Your task to perform on an android device: add a contact Image 0: 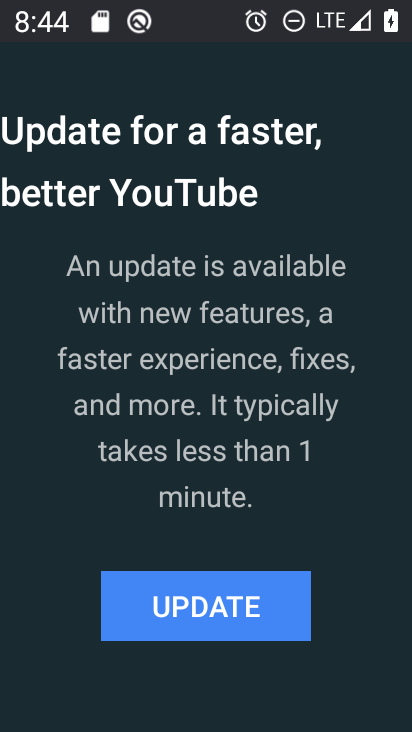
Step 0: press home button
Your task to perform on an android device: add a contact Image 1: 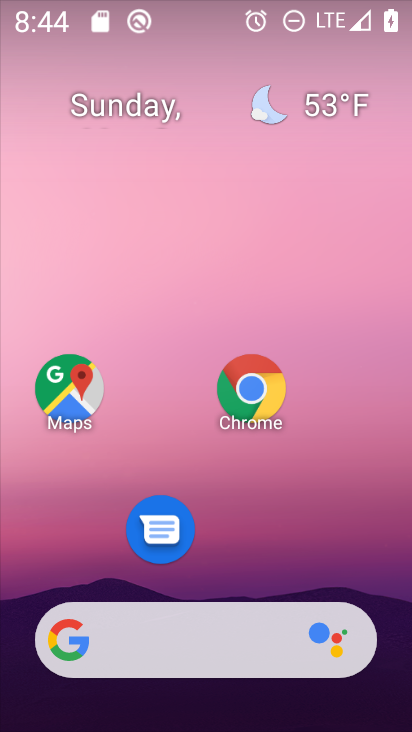
Step 1: drag from (251, 569) to (314, 50)
Your task to perform on an android device: add a contact Image 2: 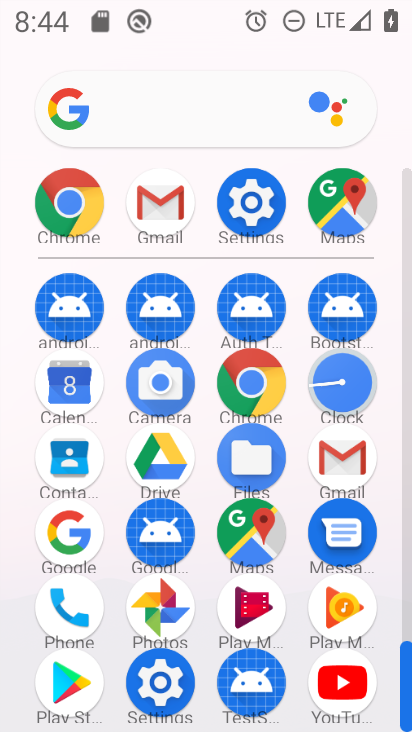
Step 2: click (71, 478)
Your task to perform on an android device: add a contact Image 3: 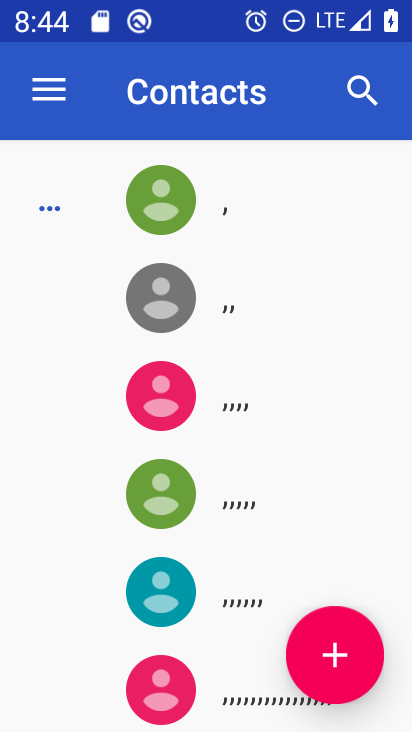
Step 3: click (350, 646)
Your task to perform on an android device: add a contact Image 4: 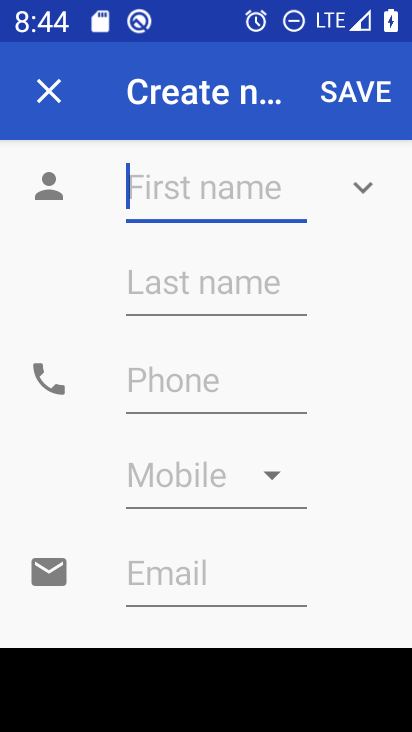
Step 4: type ""
Your task to perform on an android device: add a contact Image 5: 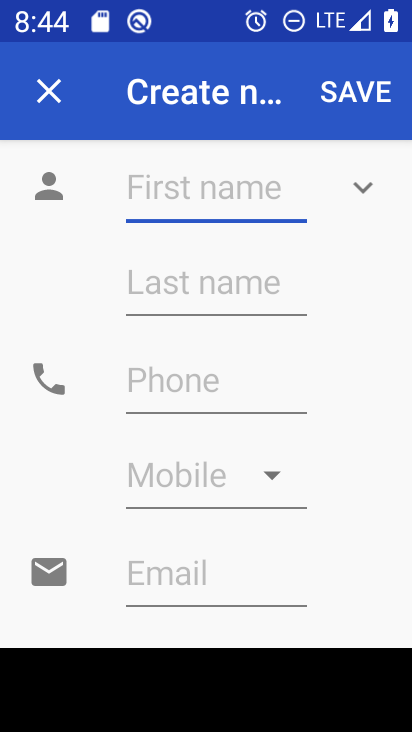
Step 5: type "clafe"
Your task to perform on an android device: add a contact Image 6: 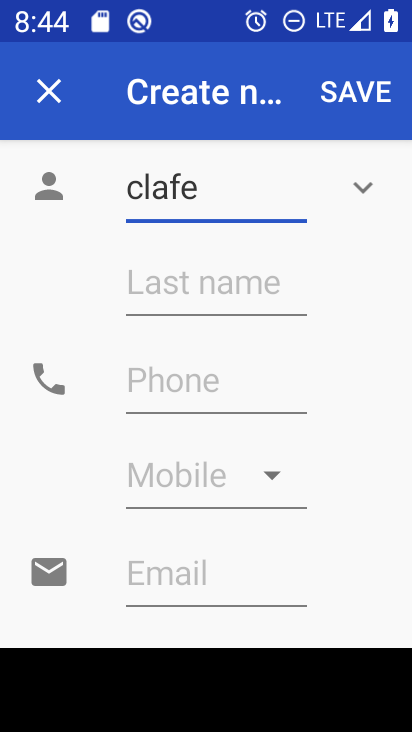
Step 6: click (371, 101)
Your task to perform on an android device: add a contact Image 7: 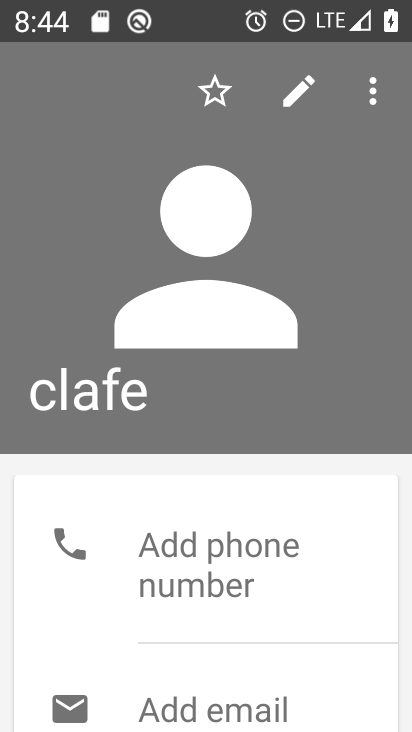
Step 7: task complete